Your task to perform on an android device: Open Google Chrome and click the shortcut for Amazon.com Image 0: 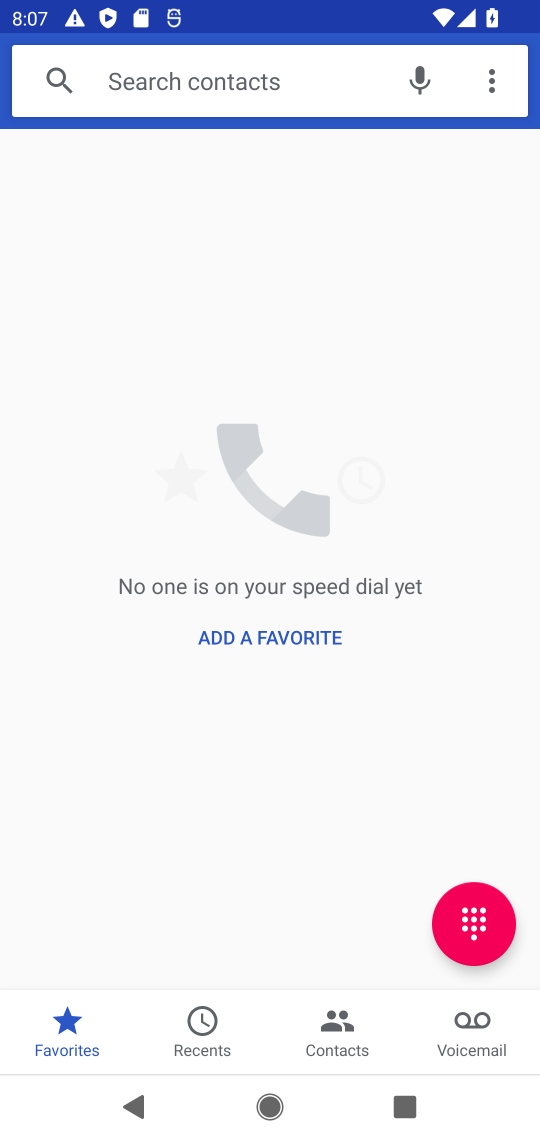
Step 0: press home button
Your task to perform on an android device: Open Google Chrome and click the shortcut for Amazon.com Image 1: 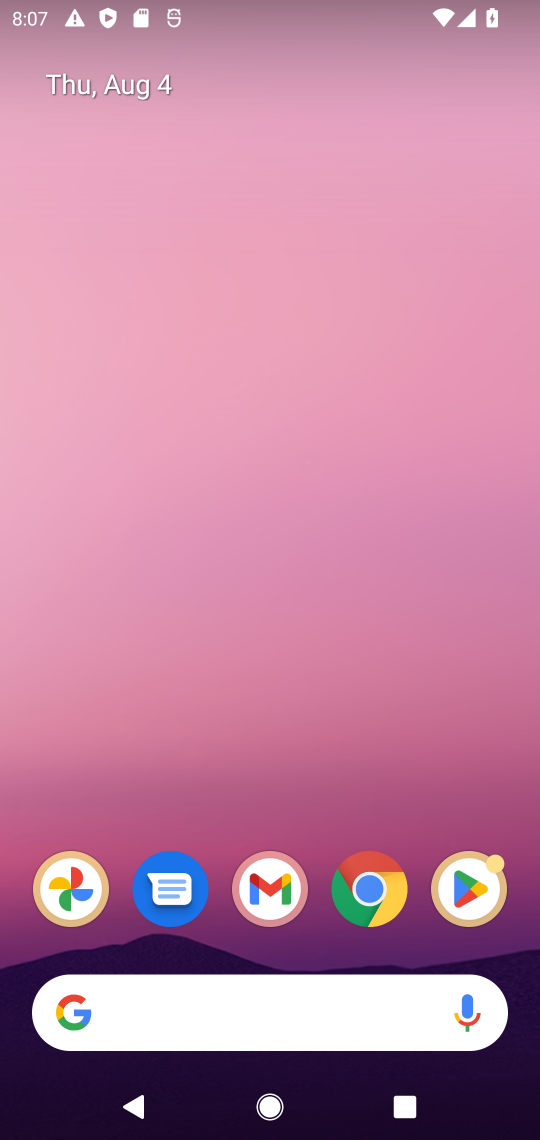
Step 1: click (352, 884)
Your task to perform on an android device: Open Google Chrome and click the shortcut for Amazon.com Image 2: 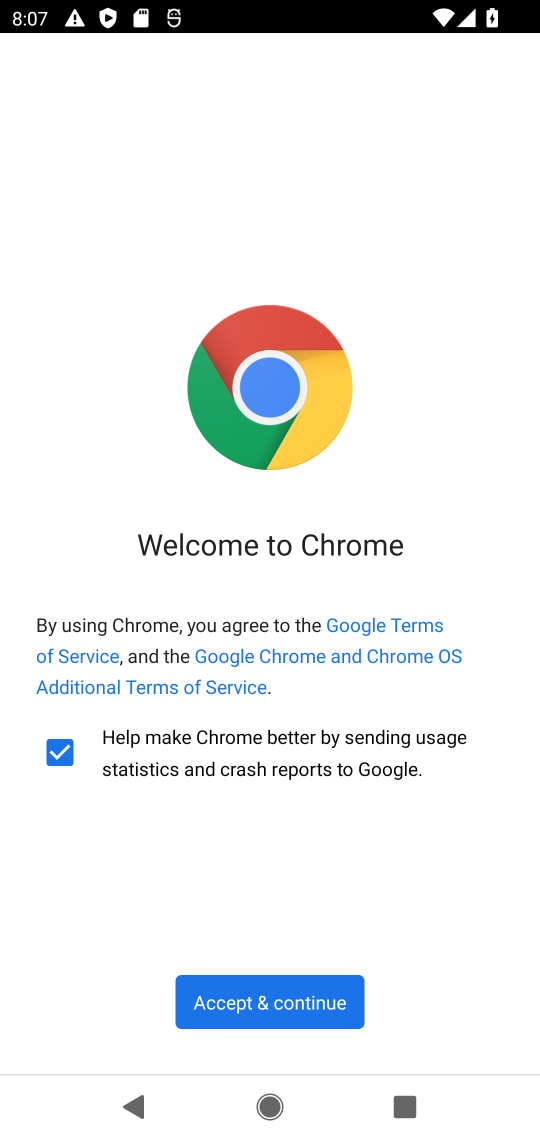
Step 2: click (240, 1012)
Your task to perform on an android device: Open Google Chrome and click the shortcut for Amazon.com Image 3: 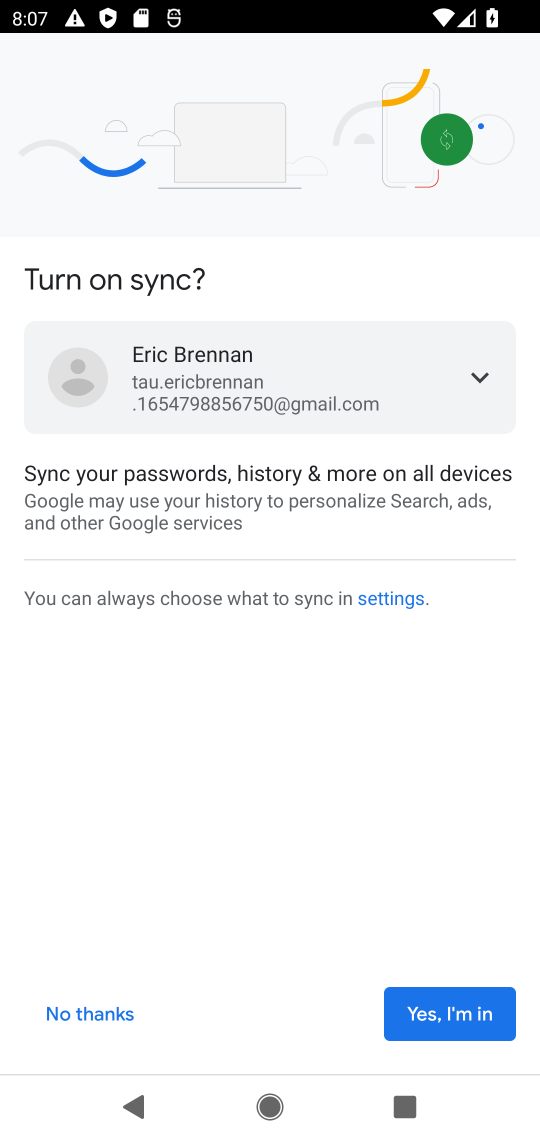
Step 3: click (423, 994)
Your task to perform on an android device: Open Google Chrome and click the shortcut for Amazon.com Image 4: 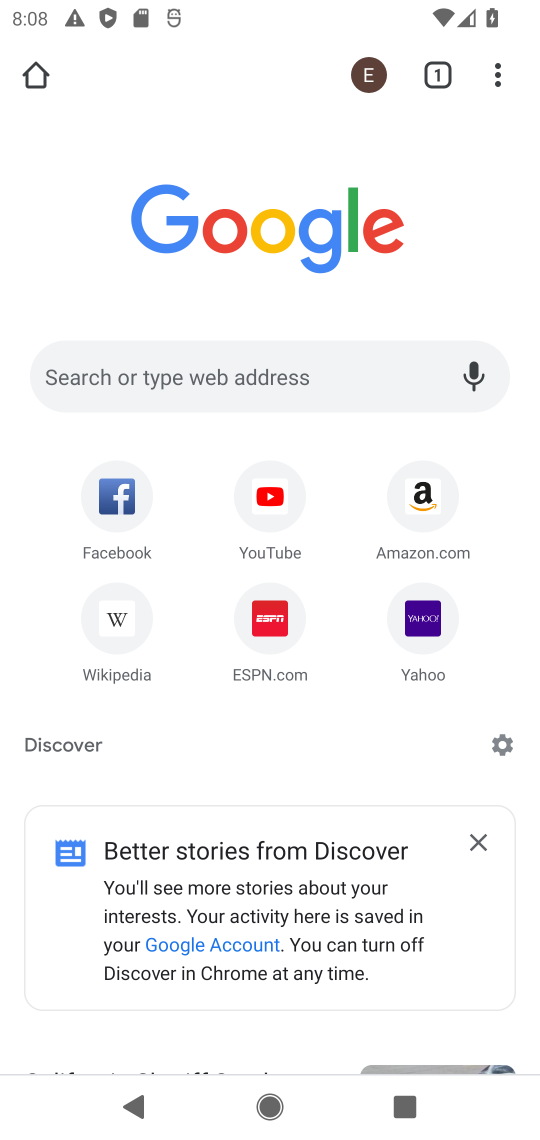
Step 4: click (413, 542)
Your task to perform on an android device: Open Google Chrome and click the shortcut for Amazon.com Image 5: 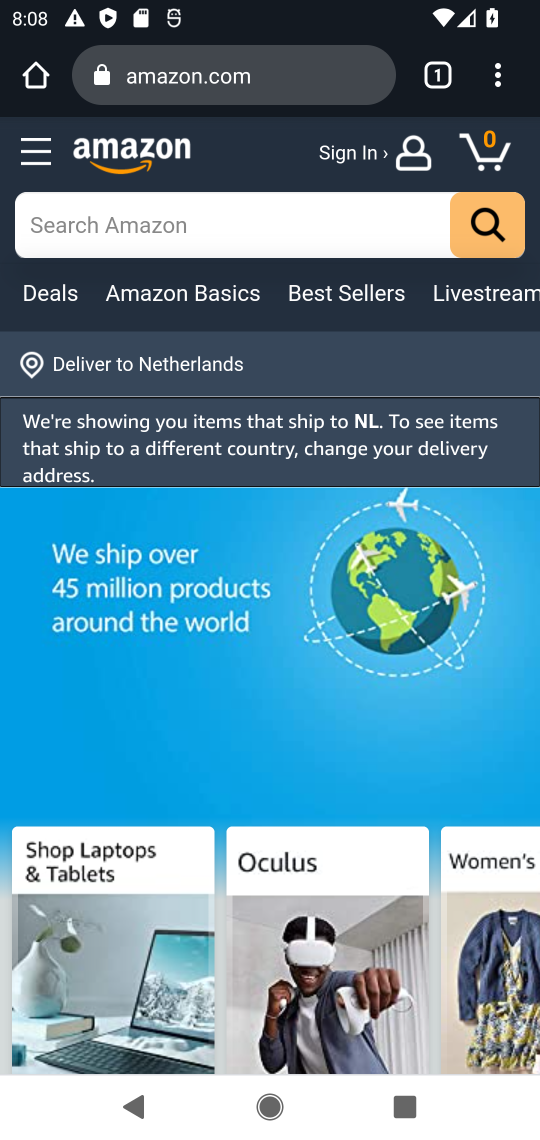
Step 5: task complete